Your task to perform on an android device: turn on data saver in the chrome app Image 0: 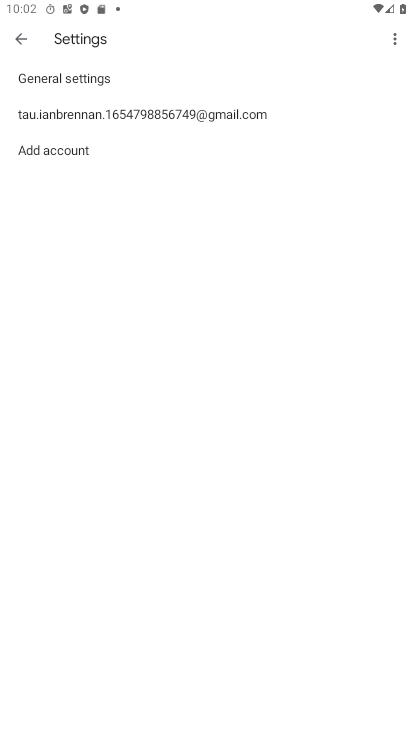
Step 0: click (11, 36)
Your task to perform on an android device: turn on data saver in the chrome app Image 1: 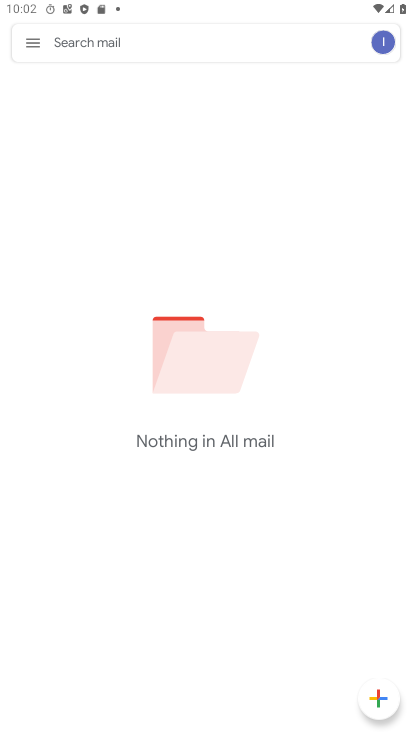
Step 1: press back button
Your task to perform on an android device: turn on data saver in the chrome app Image 2: 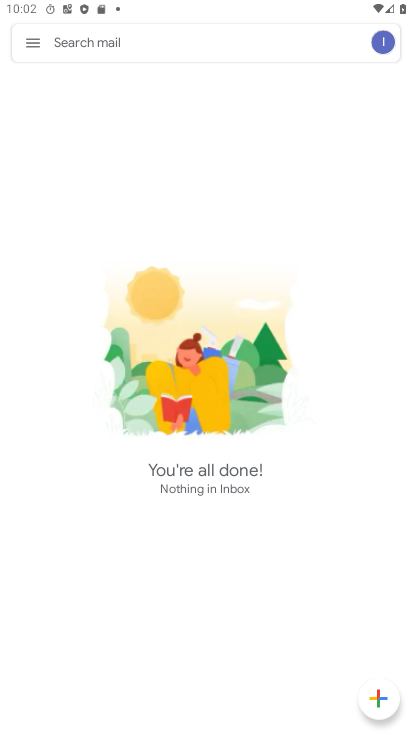
Step 2: press home button
Your task to perform on an android device: turn on data saver in the chrome app Image 3: 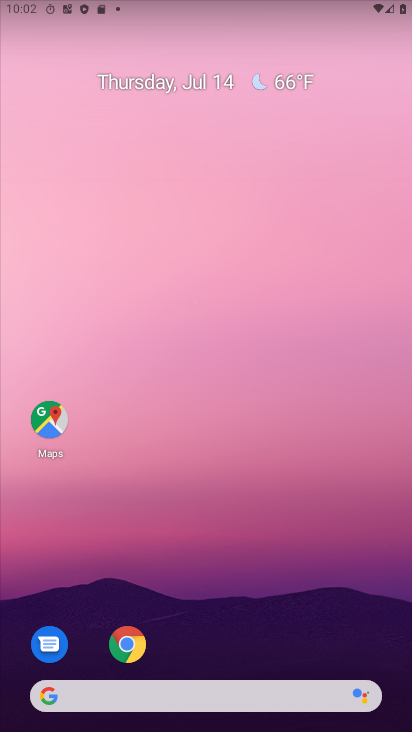
Step 3: drag from (244, 684) to (217, 267)
Your task to perform on an android device: turn on data saver in the chrome app Image 4: 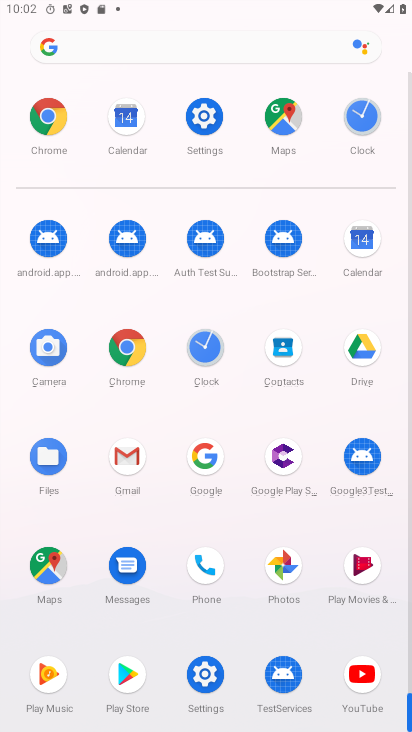
Step 4: click (49, 113)
Your task to perform on an android device: turn on data saver in the chrome app Image 5: 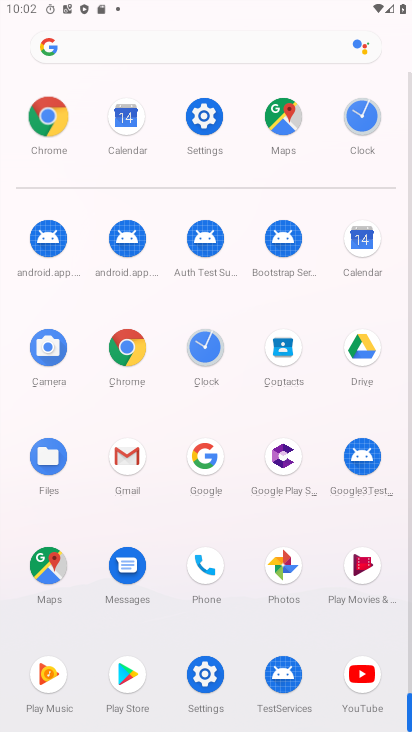
Step 5: click (49, 114)
Your task to perform on an android device: turn on data saver in the chrome app Image 6: 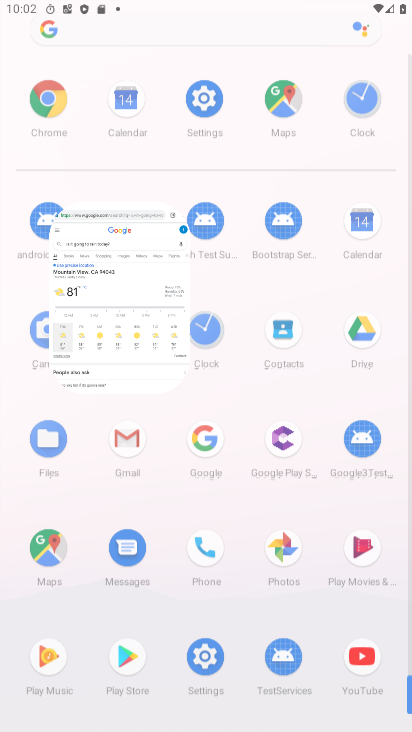
Step 6: click (49, 114)
Your task to perform on an android device: turn on data saver in the chrome app Image 7: 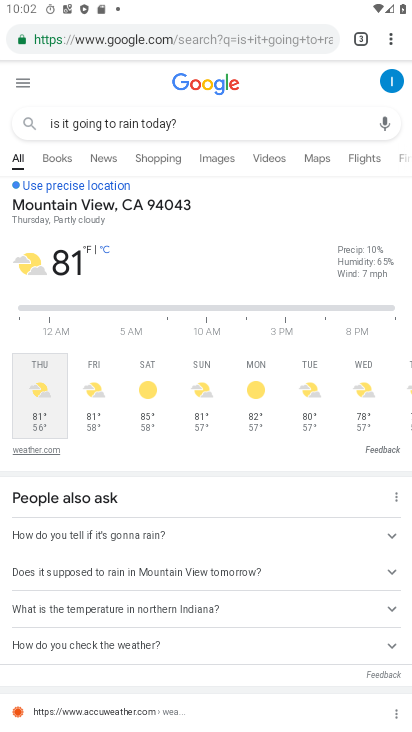
Step 7: drag from (389, 36) to (250, 433)
Your task to perform on an android device: turn on data saver in the chrome app Image 8: 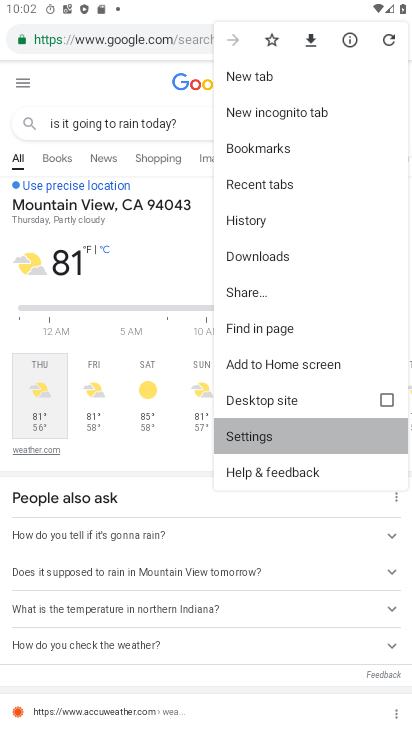
Step 8: click (251, 434)
Your task to perform on an android device: turn on data saver in the chrome app Image 9: 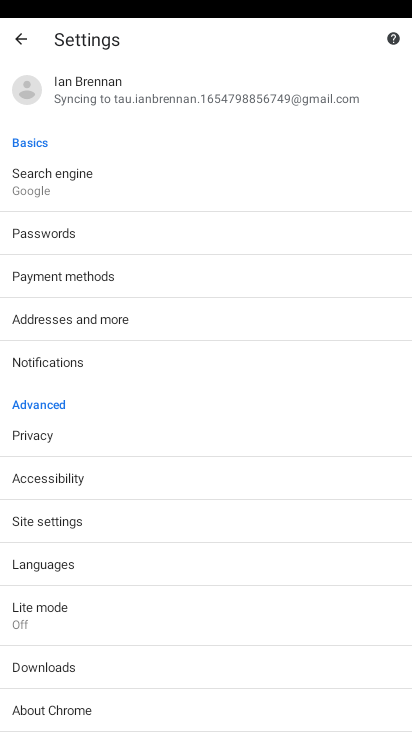
Step 9: click (38, 613)
Your task to perform on an android device: turn on data saver in the chrome app Image 10: 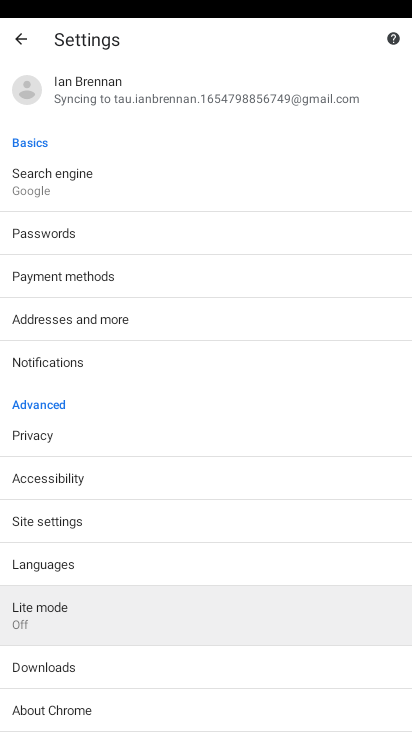
Step 10: click (39, 612)
Your task to perform on an android device: turn on data saver in the chrome app Image 11: 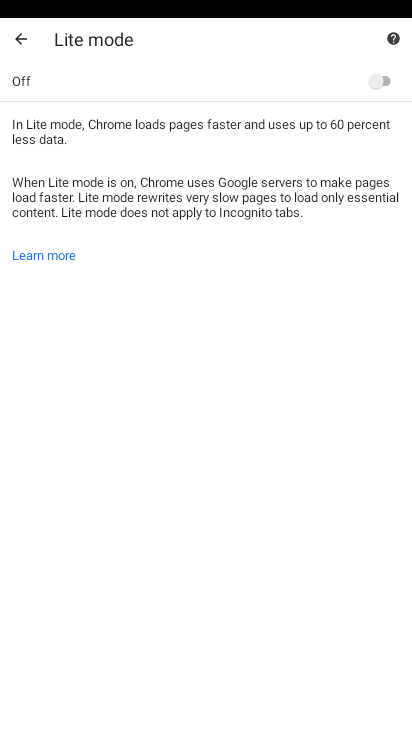
Step 11: click (372, 73)
Your task to perform on an android device: turn on data saver in the chrome app Image 12: 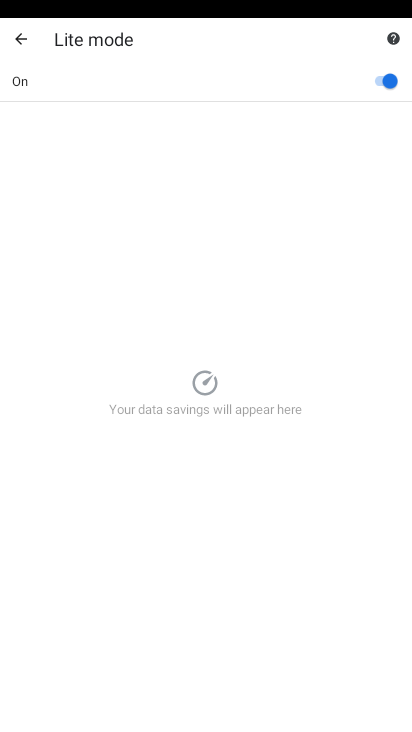
Step 12: task complete